Your task to perform on an android device: What's on my calendar tomorrow? Image 0: 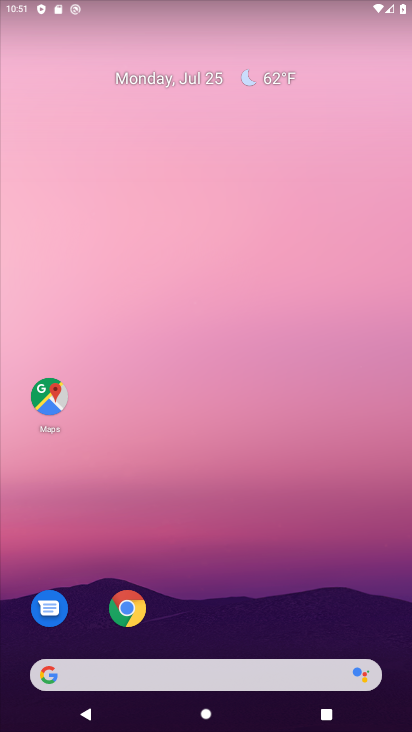
Step 0: drag from (182, 656) to (188, 258)
Your task to perform on an android device: What's on my calendar tomorrow? Image 1: 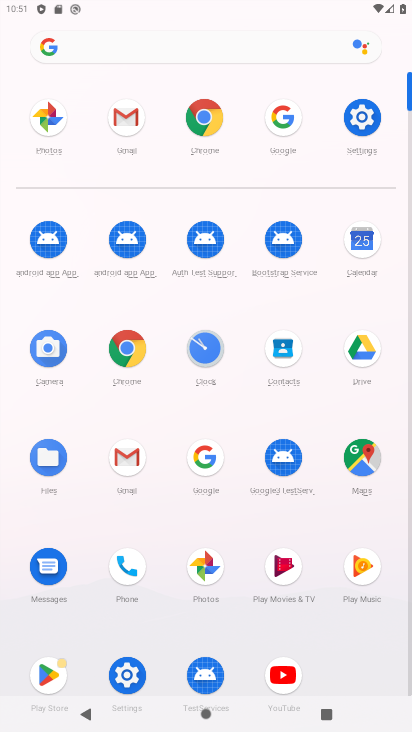
Step 1: click (367, 248)
Your task to perform on an android device: What's on my calendar tomorrow? Image 2: 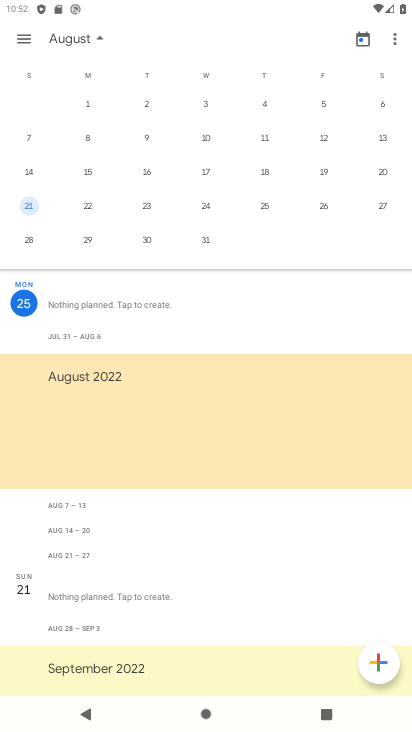
Step 2: drag from (14, 141) to (411, 237)
Your task to perform on an android device: What's on my calendar tomorrow? Image 3: 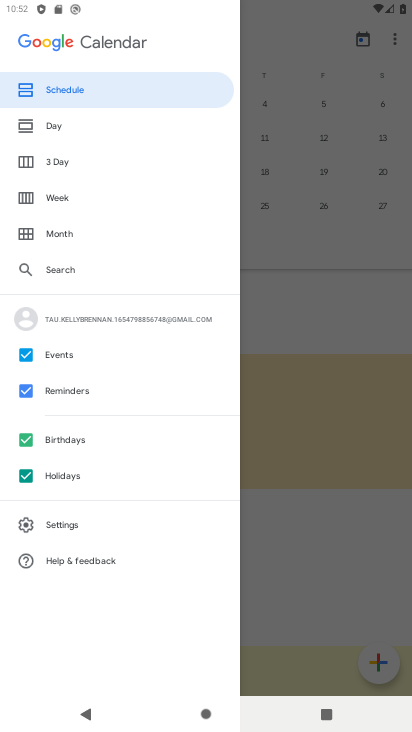
Step 3: click (346, 313)
Your task to perform on an android device: What's on my calendar tomorrow? Image 4: 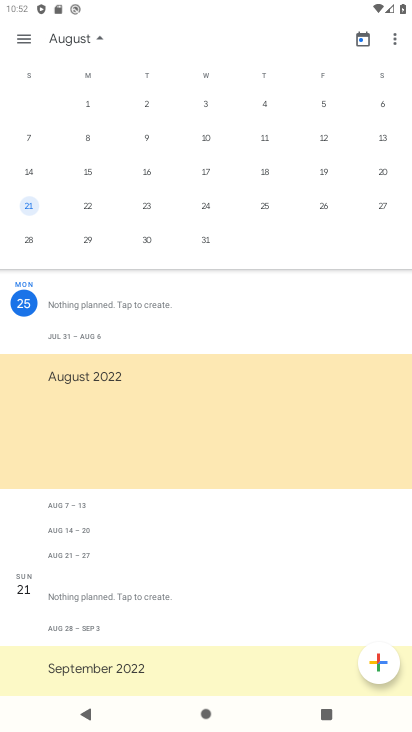
Step 4: drag from (85, 169) to (411, 251)
Your task to perform on an android device: What's on my calendar tomorrow? Image 5: 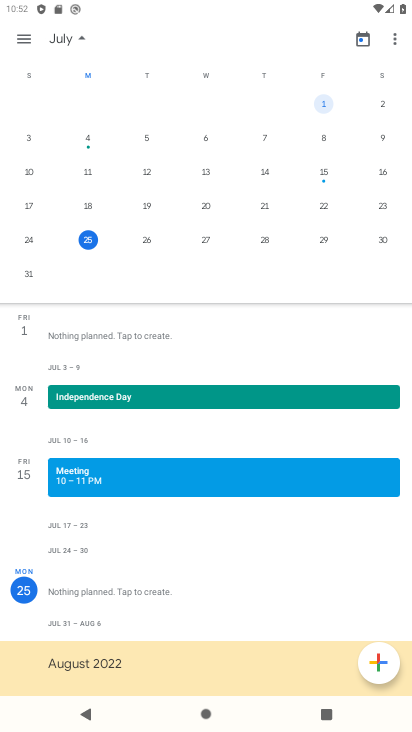
Step 5: click (142, 241)
Your task to perform on an android device: What's on my calendar tomorrow? Image 6: 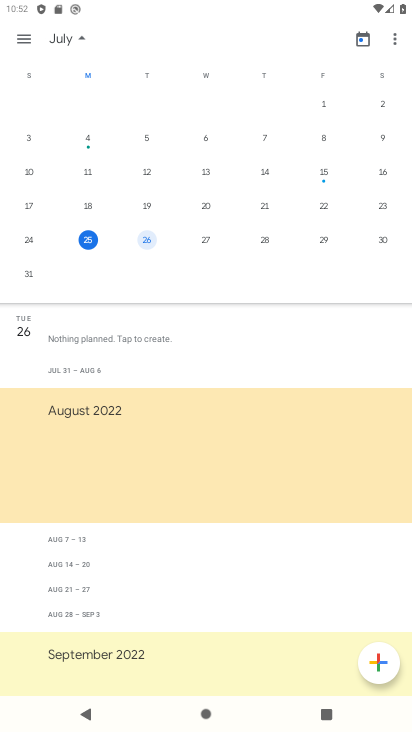
Step 6: task complete